Your task to perform on an android device: allow notifications from all sites in the chrome app Image 0: 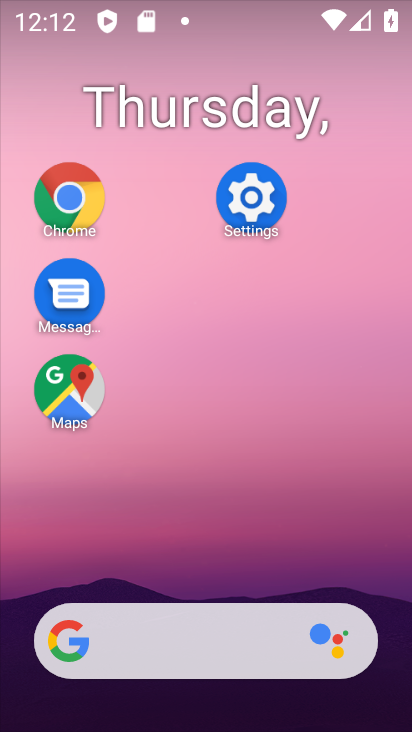
Step 0: click (406, 278)
Your task to perform on an android device: allow notifications from all sites in the chrome app Image 1: 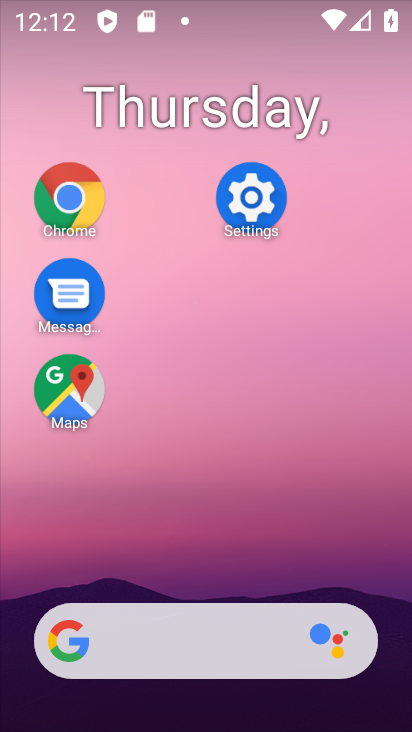
Step 1: drag from (390, 650) to (130, 58)
Your task to perform on an android device: allow notifications from all sites in the chrome app Image 2: 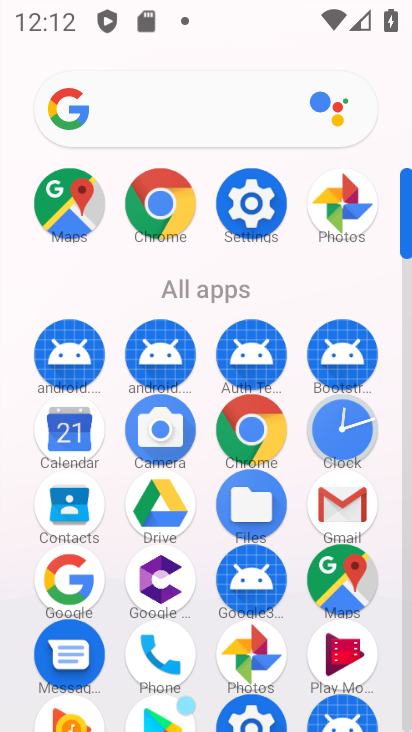
Step 2: drag from (200, 361) to (109, 146)
Your task to perform on an android device: allow notifications from all sites in the chrome app Image 3: 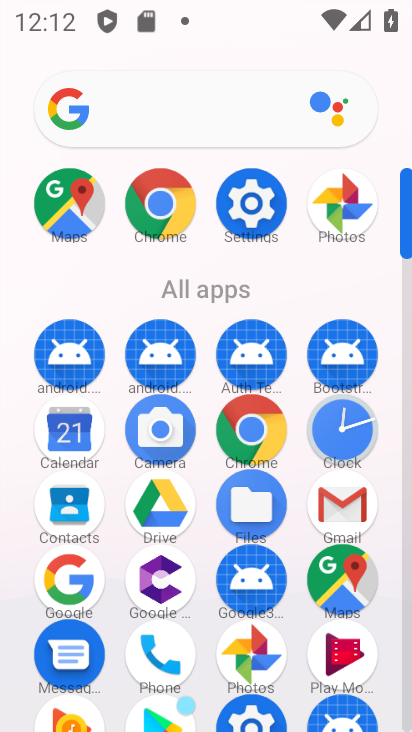
Step 3: drag from (236, 358) to (168, 18)
Your task to perform on an android device: allow notifications from all sites in the chrome app Image 4: 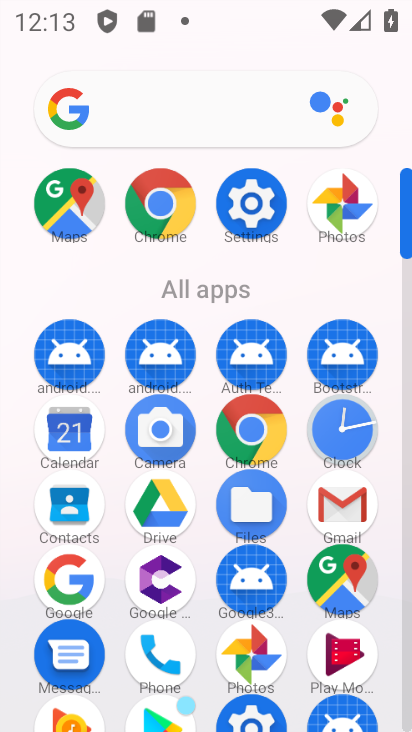
Step 4: click (157, 200)
Your task to perform on an android device: allow notifications from all sites in the chrome app Image 5: 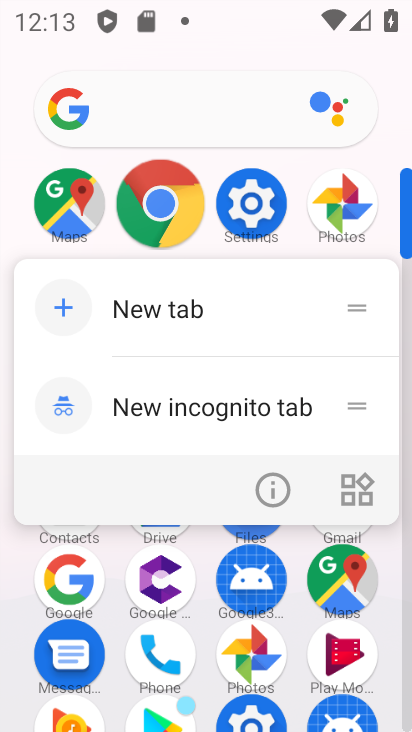
Step 5: click (160, 198)
Your task to perform on an android device: allow notifications from all sites in the chrome app Image 6: 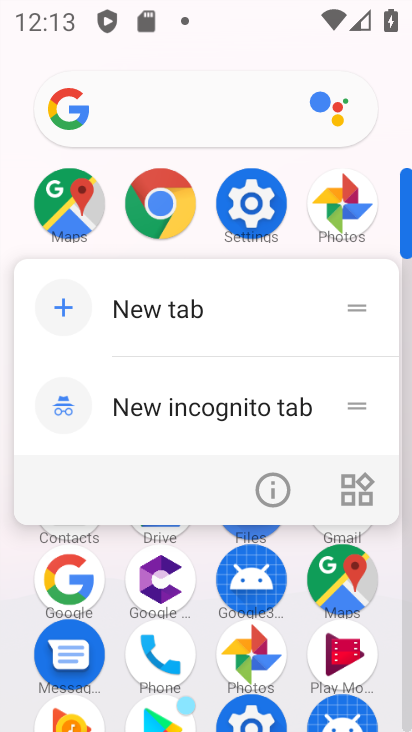
Step 6: click (160, 196)
Your task to perform on an android device: allow notifications from all sites in the chrome app Image 7: 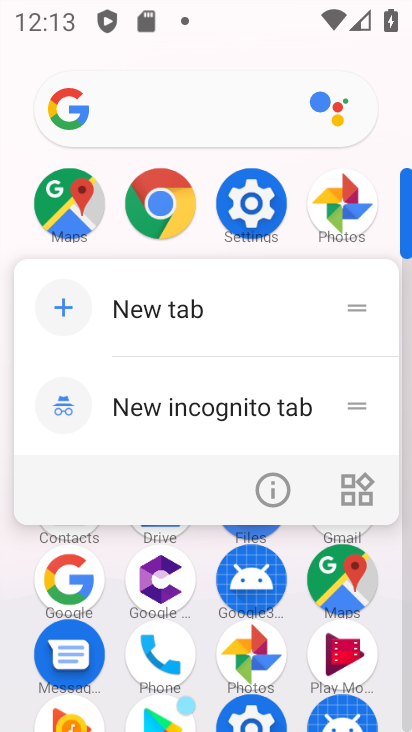
Step 7: click (160, 196)
Your task to perform on an android device: allow notifications from all sites in the chrome app Image 8: 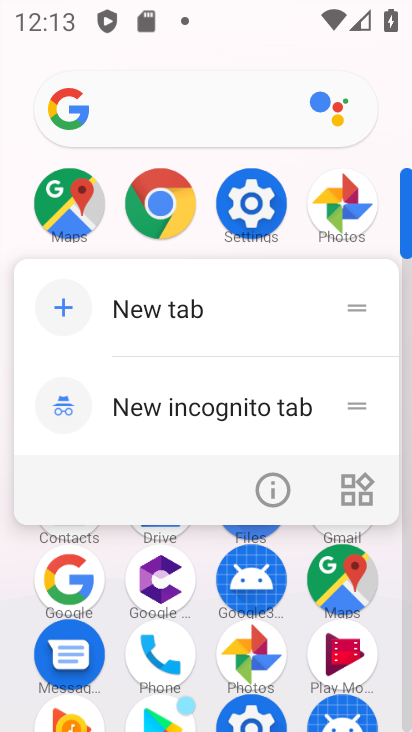
Step 8: click (160, 196)
Your task to perform on an android device: allow notifications from all sites in the chrome app Image 9: 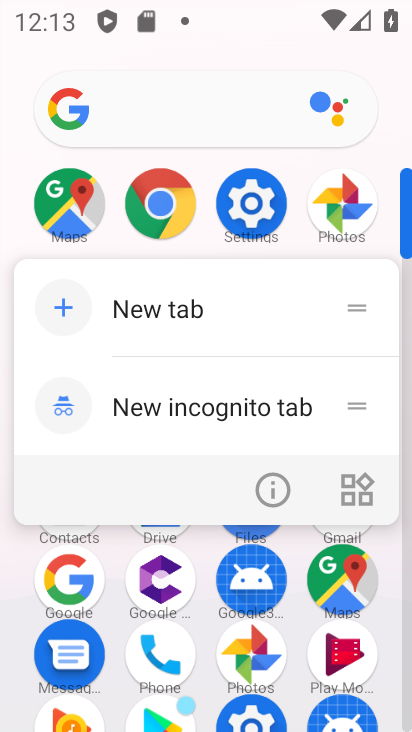
Step 9: click (153, 300)
Your task to perform on an android device: allow notifications from all sites in the chrome app Image 10: 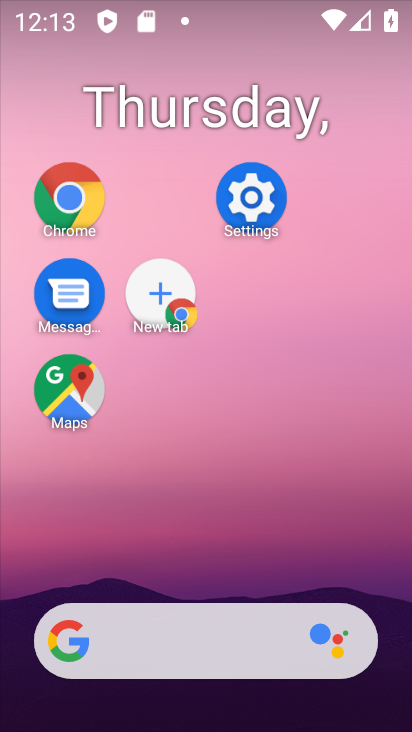
Step 10: click (66, 214)
Your task to perform on an android device: allow notifications from all sites in the chrome app Image 11: 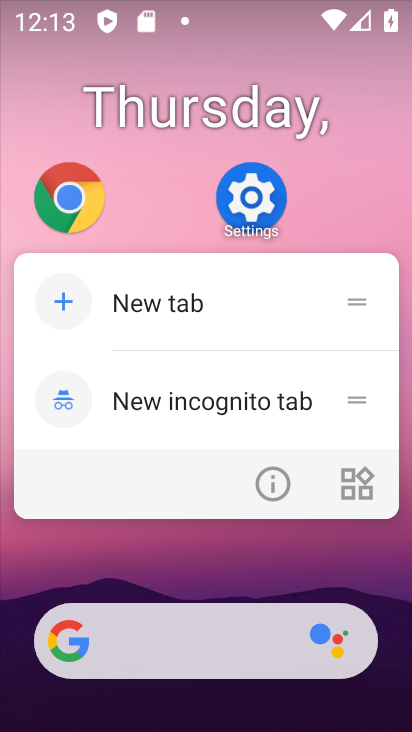
Step 11: click (68, 211)
Your task to perform on an android device: allow notifications from all sites in the chrome app Image 12: 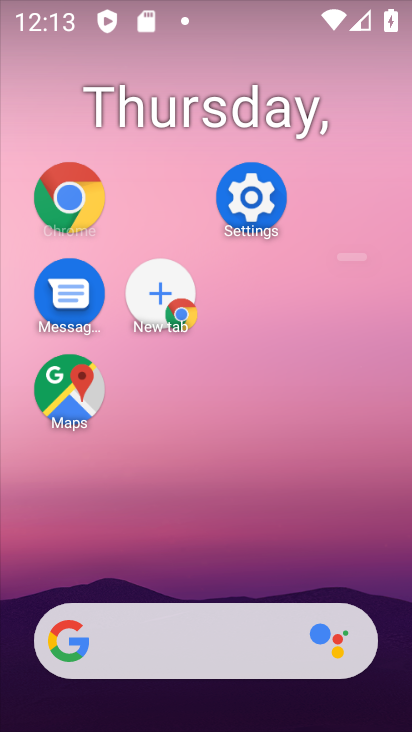
Step 12: click (139, 300)
Your task to perform on an android device: allow notifications from all sites in the chrome app Image 13: 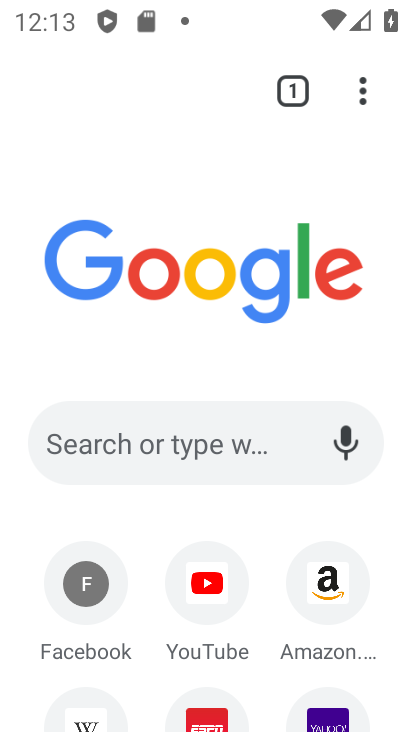
Step 13: drag from (359, 89) to (82, 553)
Your task to perform on an android device: allow notifications from all sites in the chrome app Image 14: 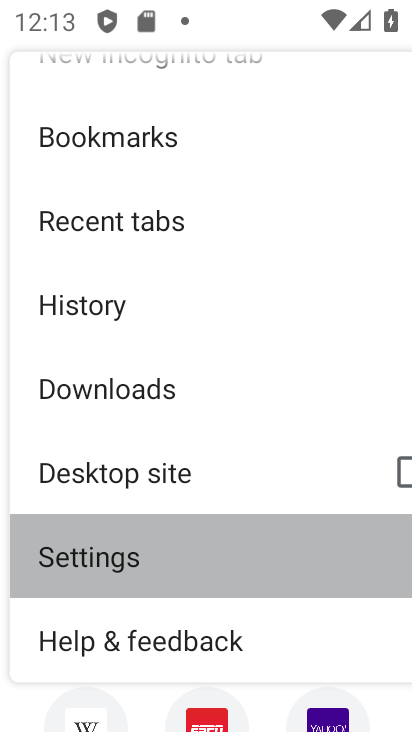
Step 14: click (82, 553)
Your task to perform on an android device: allow notifications from all sites in the chrome app Image 15: 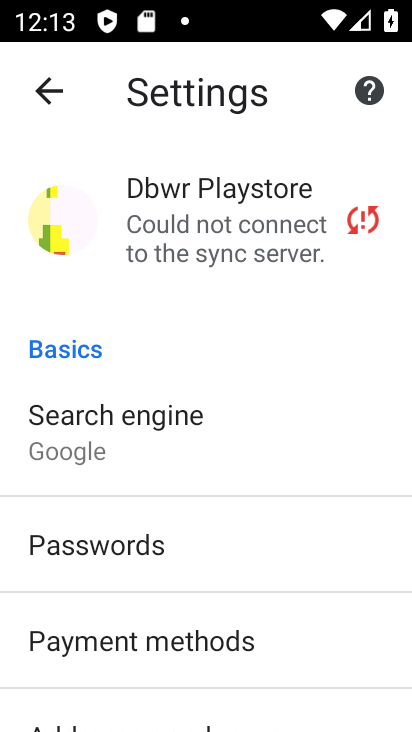
Step 15: drag from (212, 529) to (179, 146)
Your task to perform on an android device: allow notifications from all sites in the chrome app Image 16: 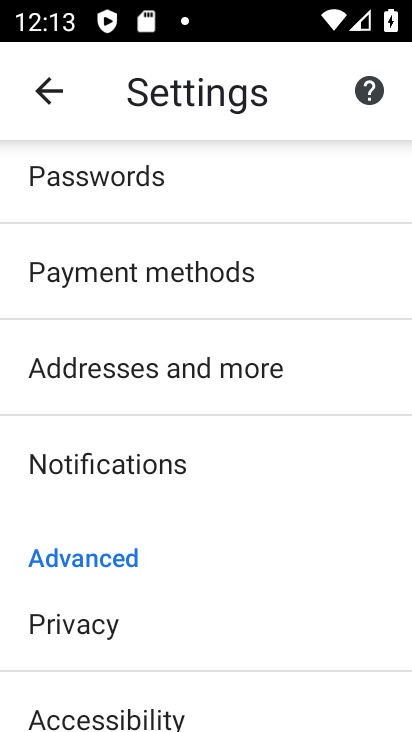
Step 16: drag from (200, 627) to (128, 169)
Your task to perform on an android device: allow notifications from all sites in the chrome app Image 17: 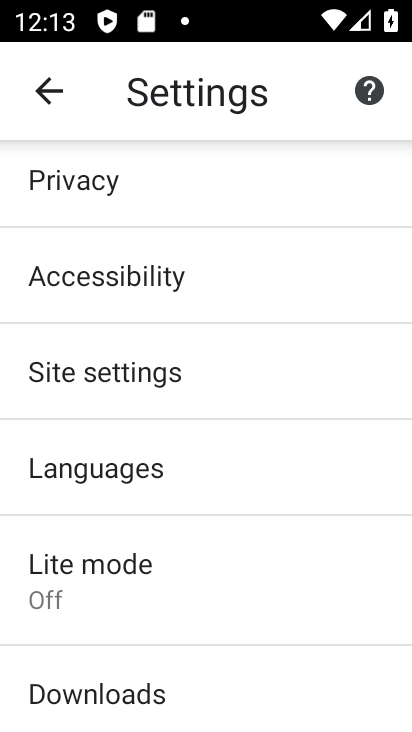
Step 17: click (111, 373)
Your task to perform on an android device: allow notifications from all sites in the chrome app Image 18: 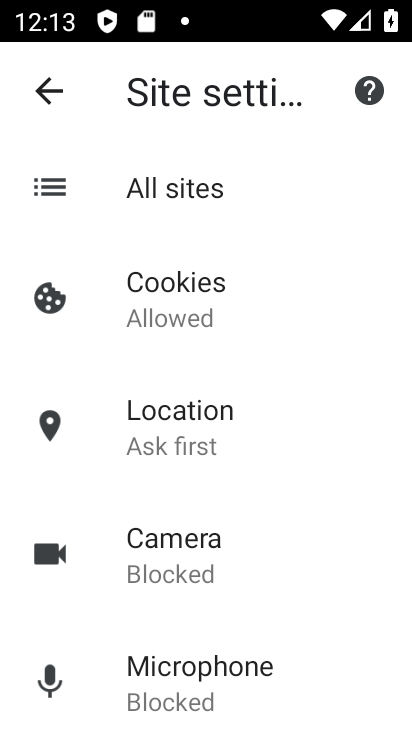
Step 18: click (169, 174)
Your task to perform on an android device: allow notifications from all sites in the chrome app Image 19: 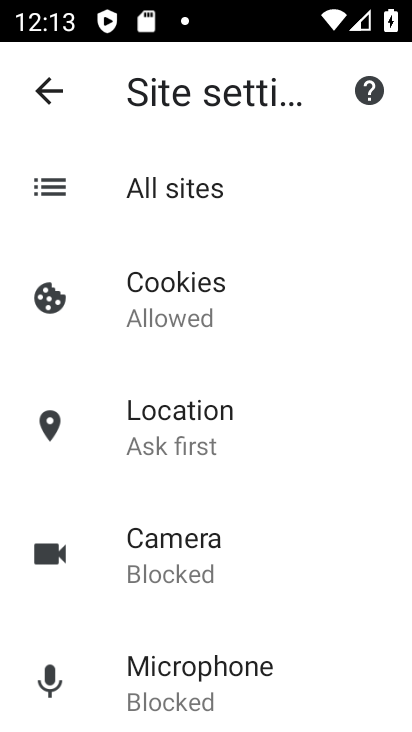
Step 19: click (169, 174)
Your task to perform on an android device: allow notifications from all sites in the chrome app Image 20: 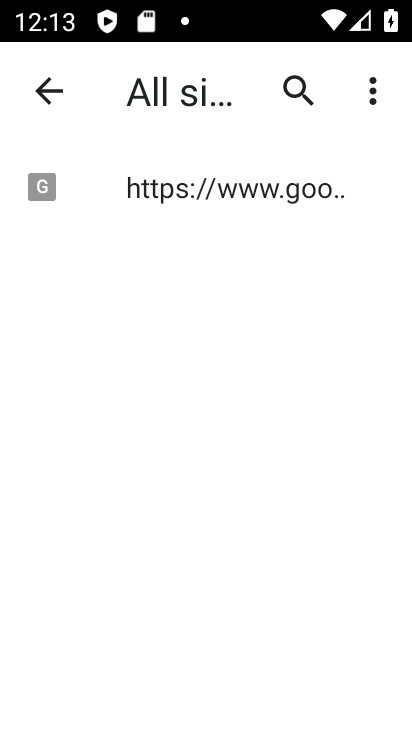
Step 20: click (251, 192)
Your task to perform on an android device: allow notifications from all sites in the chrome app Image 21: 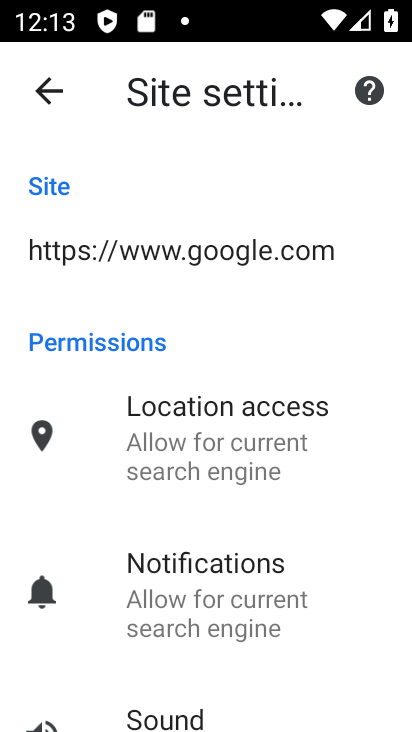
Step 21: click (158, 452)
Your task to perform on an android device: allow notifications from all sites in the chrome app Image 22: 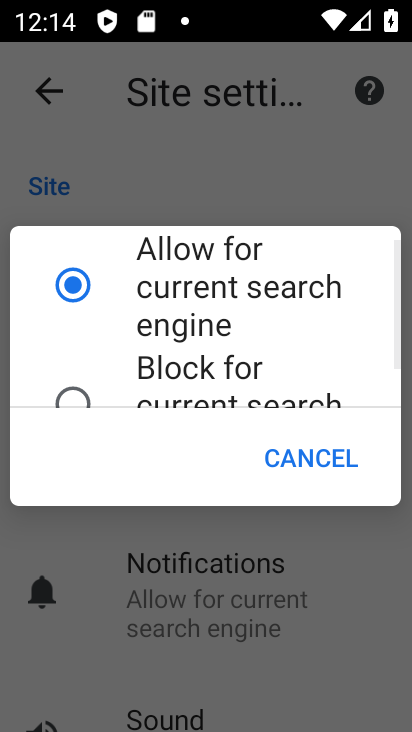
Step 22: click (310, 453)
Your task to perform on an android device: allow notifications from all sites in the chrome app Image 23: 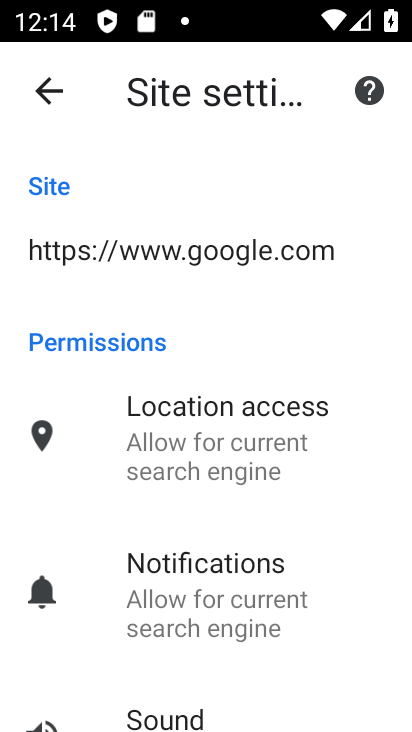
Step 23: click (211, 594)
Your task to perform on an android device: allow notifications from all sites in the chrome app Image 24: 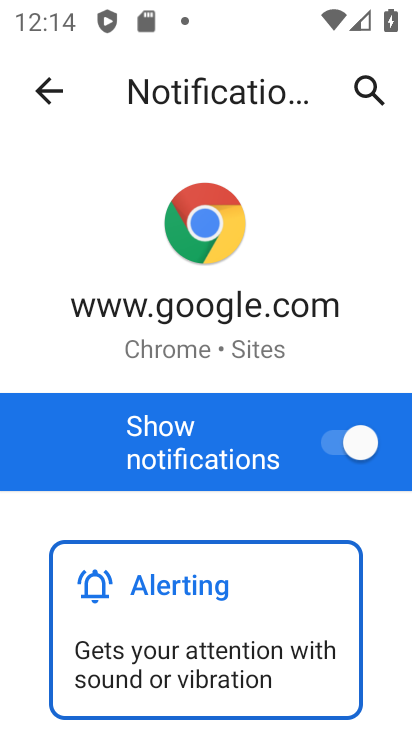
Step 24: click (34, 75)
Your task to perform on an android device: allow notifications from all sites in the chrome app Image 25: 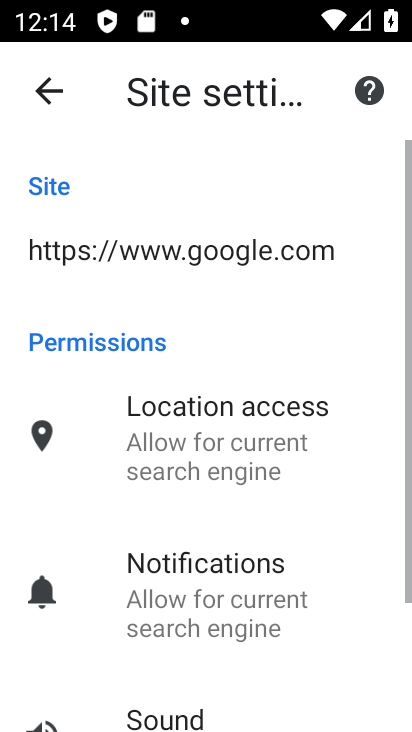
Step 25: drag from (208, 608) to (184, 366)
Your task to perform on an android device: allow notifications from all sites in the chrome app Image 26: 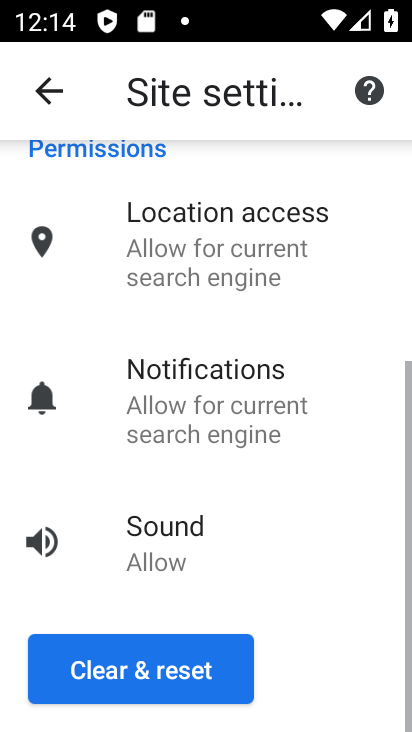
Step 26: click (158, 539)
Your task to perform on an android device: allow notifications from all sites in the chrome app Image 27: 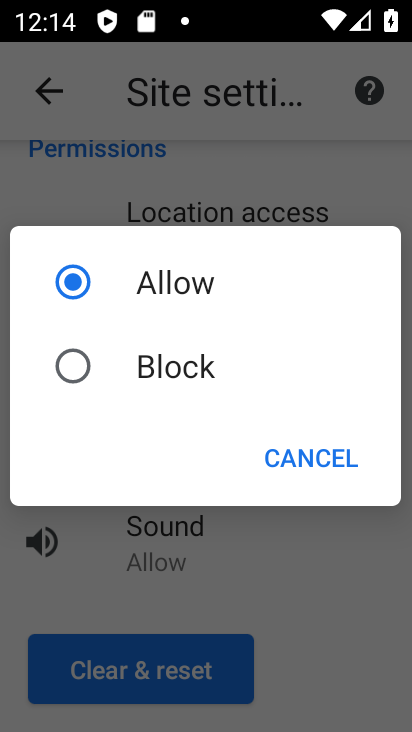
Step 27: click (308, 447)
Your task to perform on an android device: allow notifications from all sites in the chrome app Image 28: 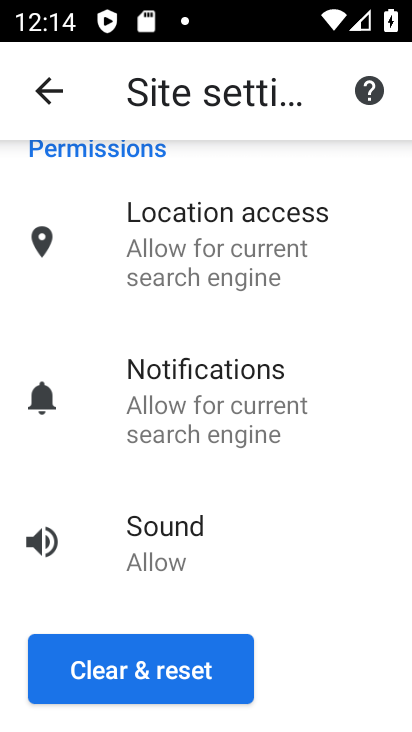
Step 28: task complete